Your task to perform on an android device: Go to ESPN.com Image 0: 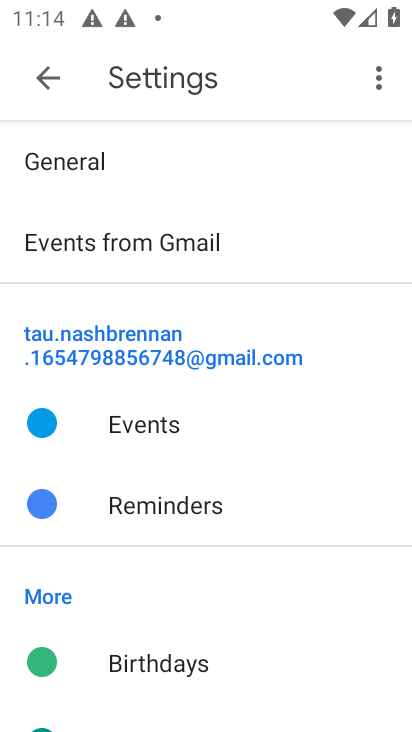
Step 0: press home button
Your task to perform on an android device: Go to ESPN.com Image 1: 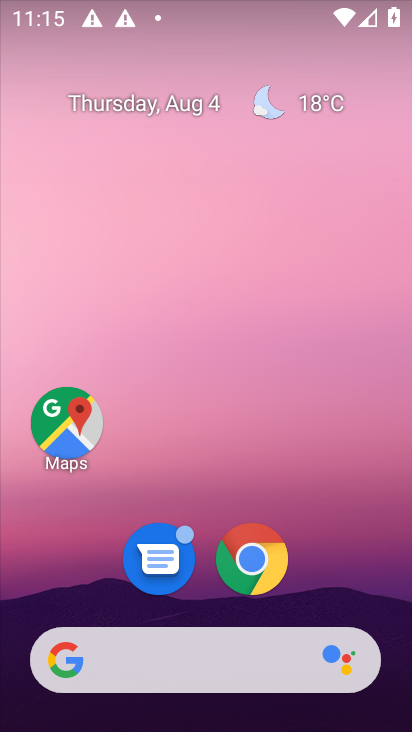
Step 1: click (111, 643)
Your task to perform on an android device: Go to ESPN.com Image 2: 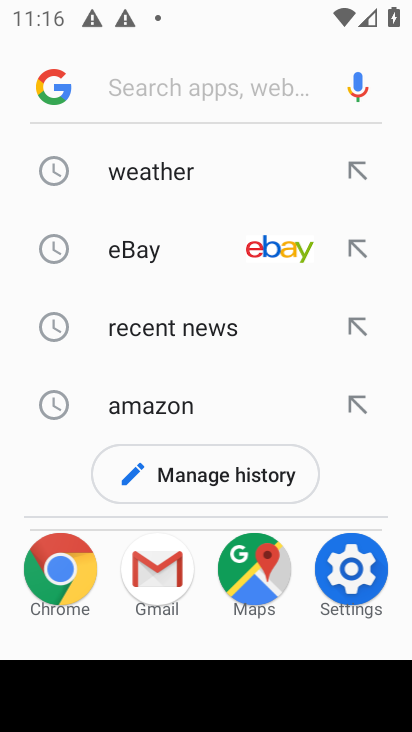
Step 2: type "ESPN.com"
Your task to perform on an android device: Go to ESPN.com Image 3: 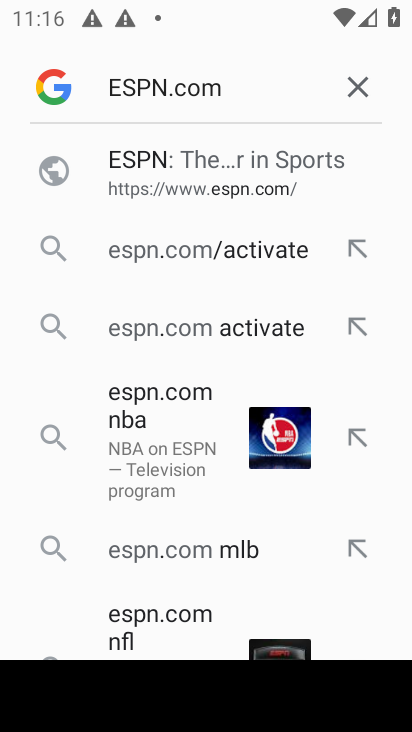
Step 3: click (172, 150)
Your task to perform on an android device: Go to ESPN.com Image 4: 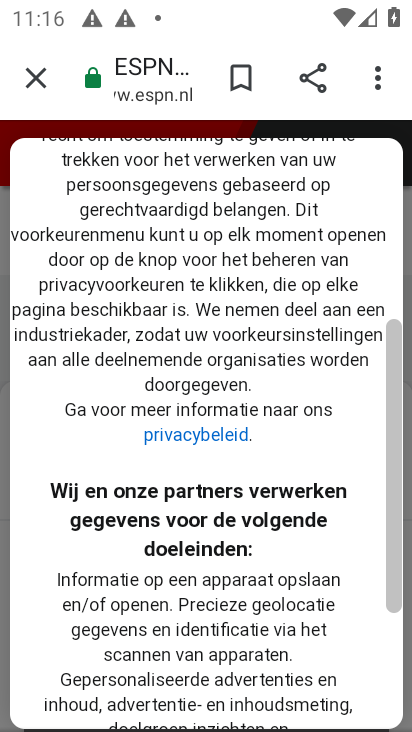
Step 4: task complete